Your task to perform on an android device: toggle improve location accuracy Image 0: 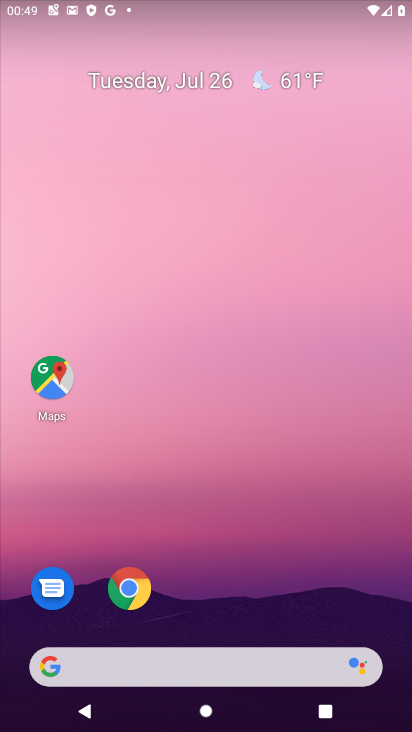
Step 0: drag from (252, 624) to (43, 26)
Your task to perform on an android device: toggle improve location accuracy Image 1: 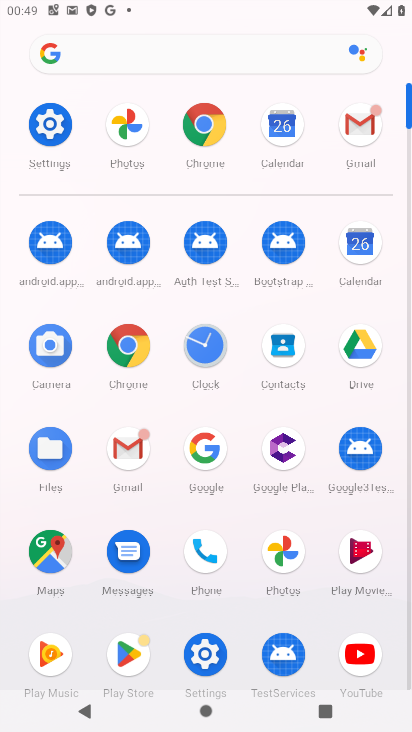
Step 1: click (51, 123)
Your task to perform on an android device: toggle improve location accuracy Image 2: 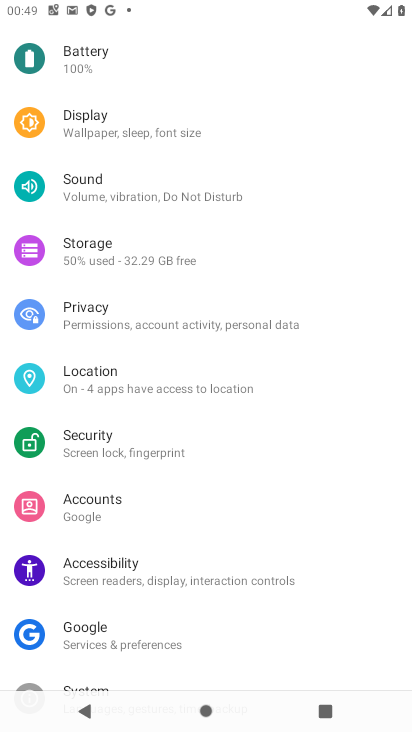
Step 2: click (111, 378)
Your task to perform on an android device: toggle improve location accuracy Image 3: 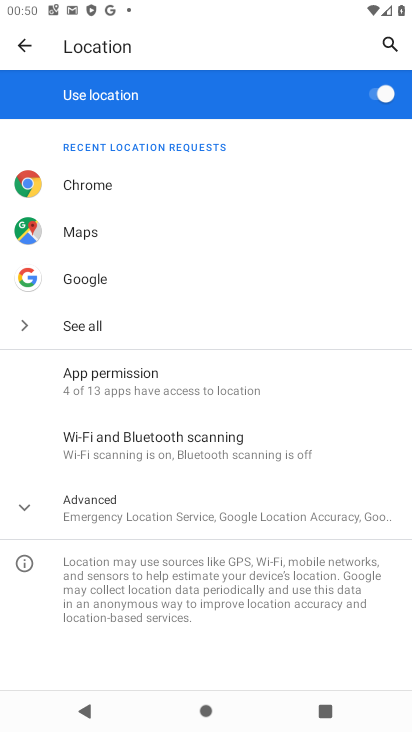
Step 3: click (34, 502)
Your task to perform on an android device: toggle improve location accuracy Image 4: 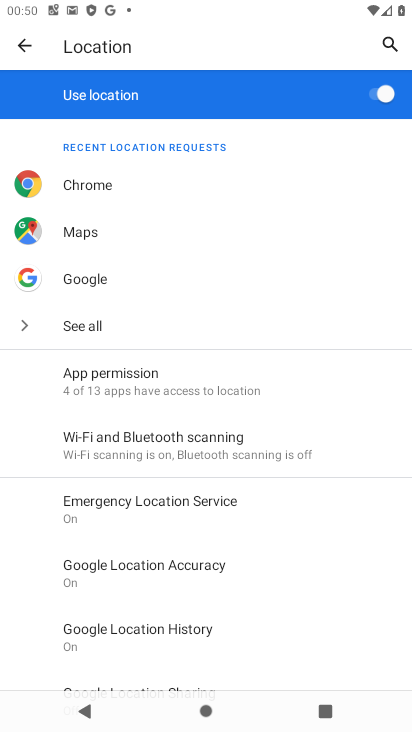
Step 4: click (161, 571)
Your task to perform on an android device: toggle improve location accuracy Image 5: 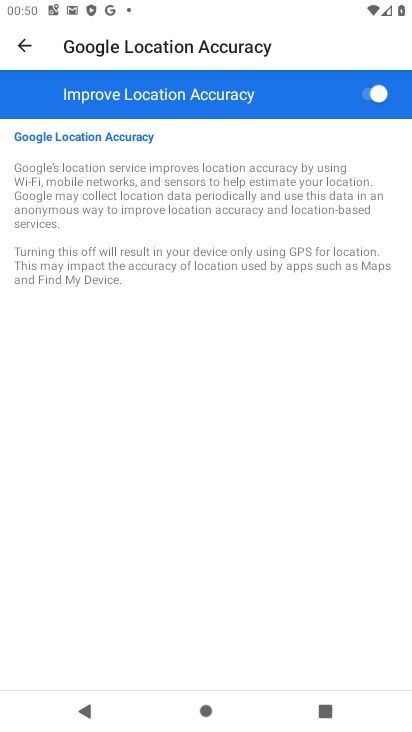
Step 5: click (363, 88)
Your task to perform on an android device: toggle improve location accuracy Image 6: 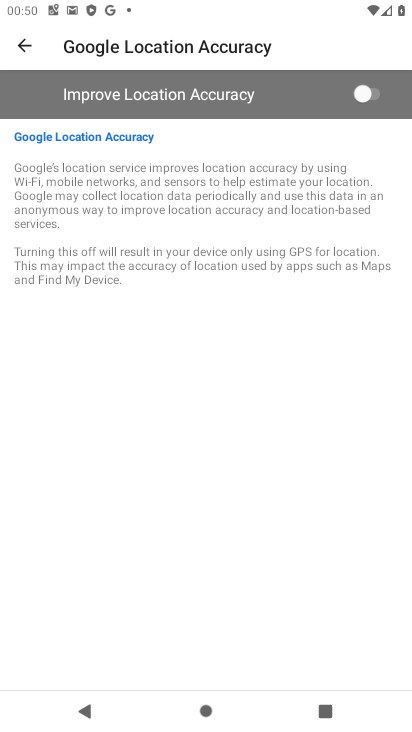
Step 6: task complete